Your task to perform on an android device: Clear all items from cart on amazon. Image 0: 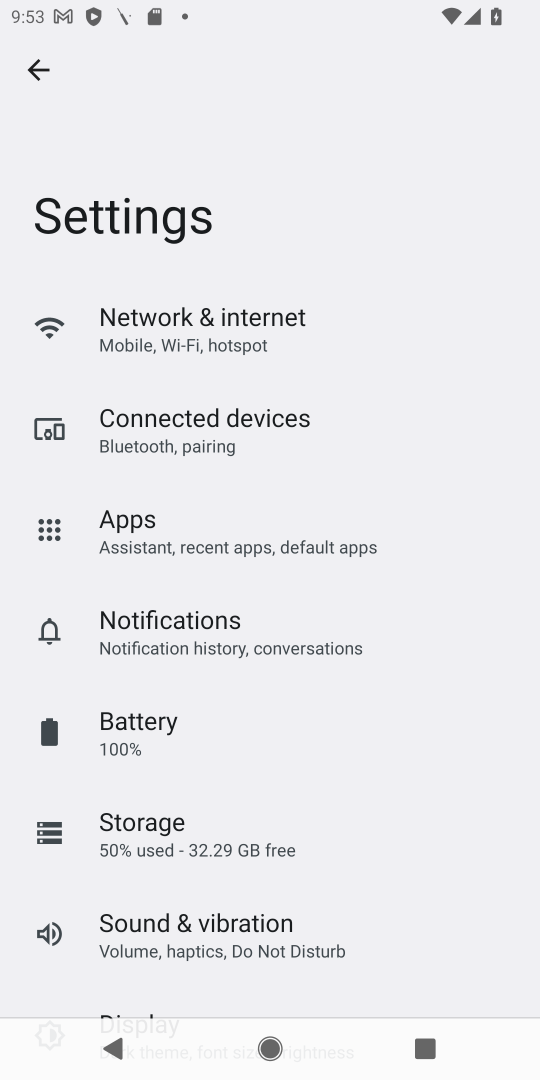
Step 0: press home button
Your task to perform on an android device: Clear all items from cart on amazon. Image 1: 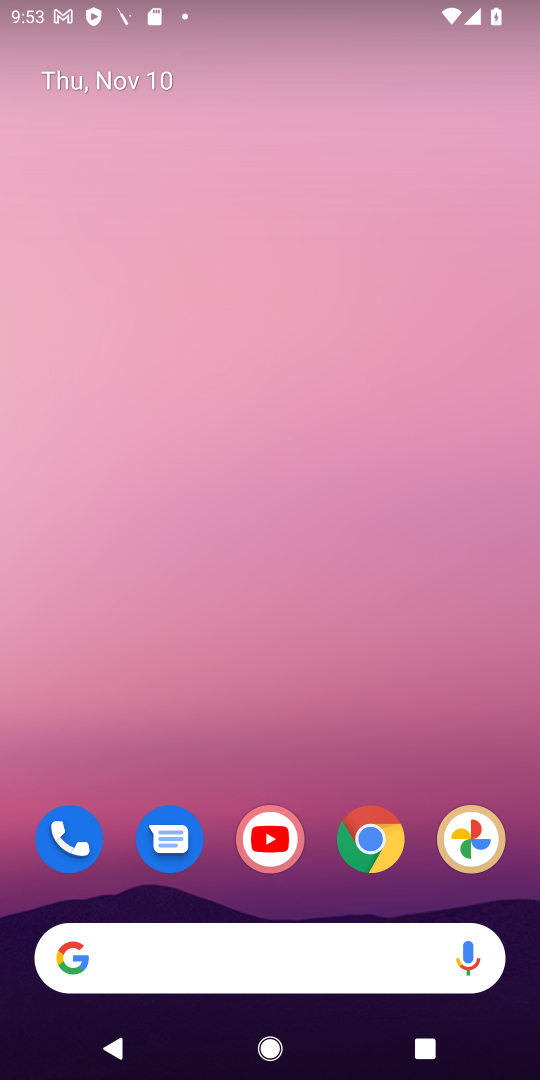
Step 1: click (364, 852)
Your task to perform on an android device: Clear all items from cart on amazon. Image 2: 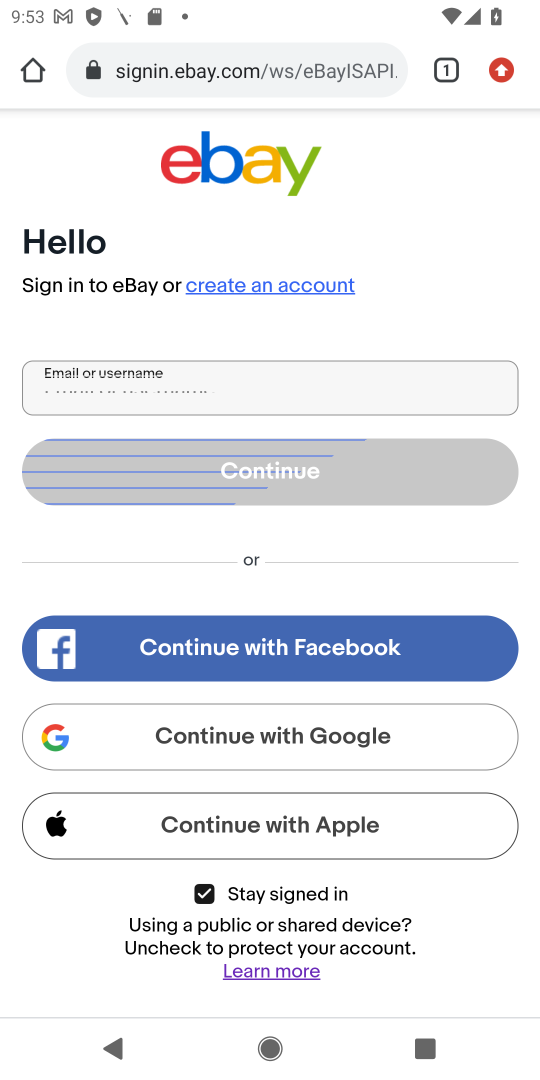
Step 2: click (295, 67)
Your task to perform on an android device: Clear all items from cart on amazon. Image 3: 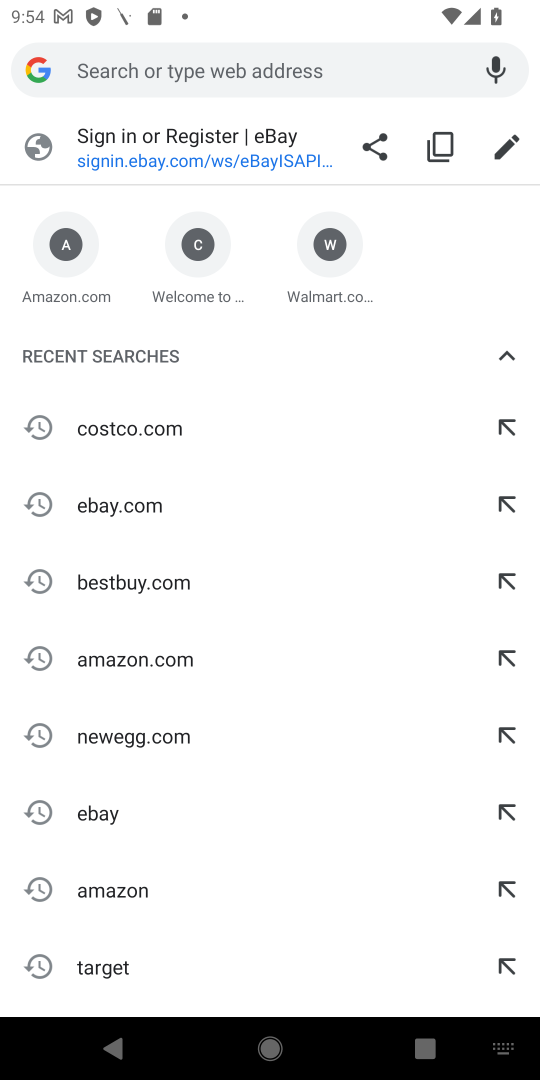
Step 3: click (74, 227)
Your task to perform on an android device: Clear all items from cart on amazon. Image 4: 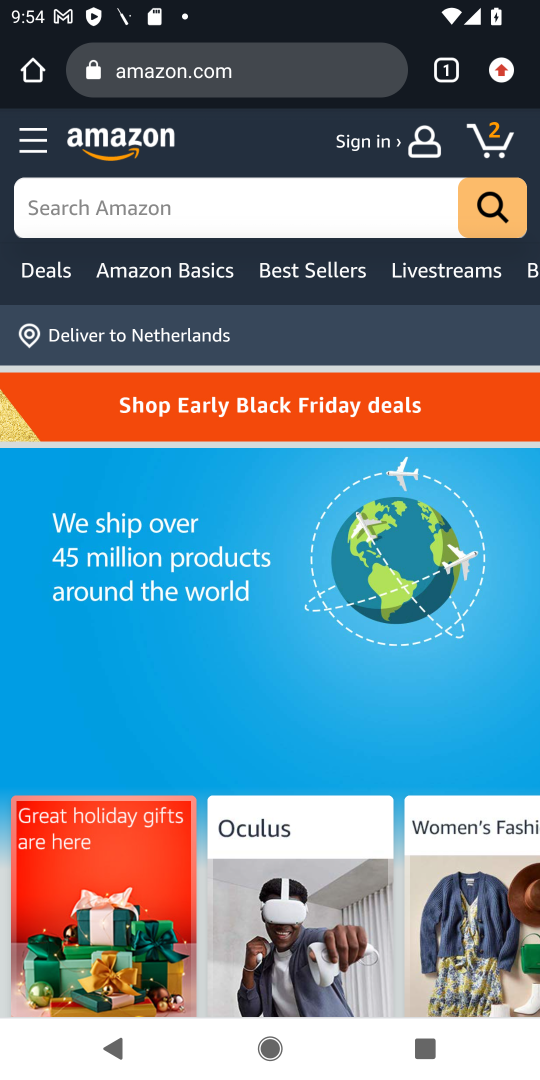
Step 4: click (493, 132)
Your task to perform on an android device: Clear all items from cart on amazon. Image 5: 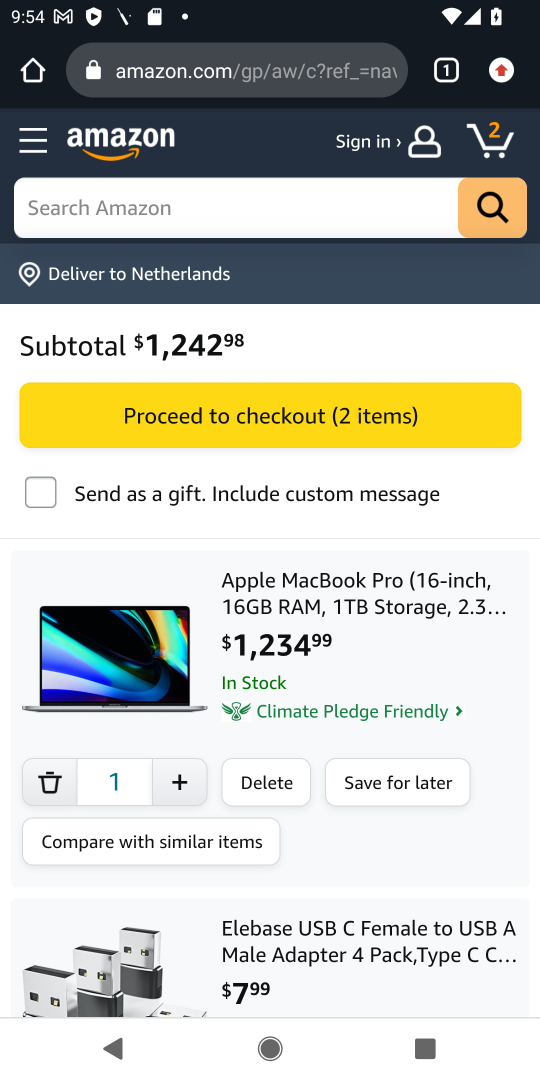
Step 5: click (286, 784)
Your task to perform on an android device: Clear all items from cart on amazon. Image 6: 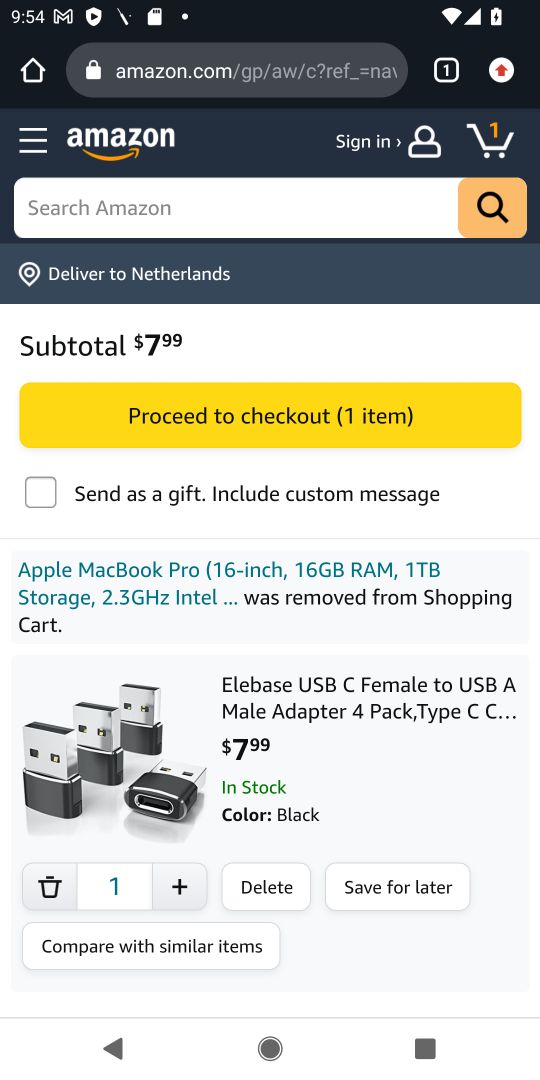
Step 6: click (267, 889)
Your task to perform on an android device: Clear all items from cart on amazon. Image 7: 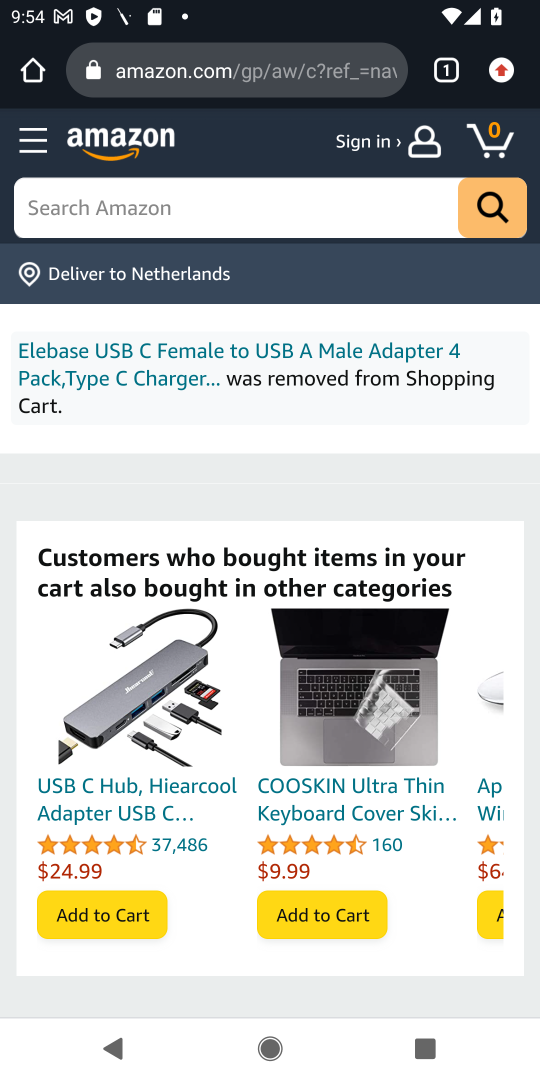
Step 7: task complete